Your task to perform on an android device: turn off data saver in the chrome app Image 0: 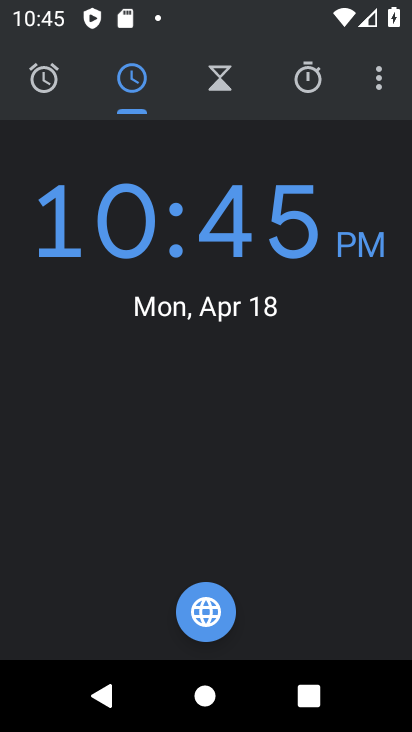
Step 0: press home button
Your task to perform on an android device: turn off data saver in the chrome app Image 1: 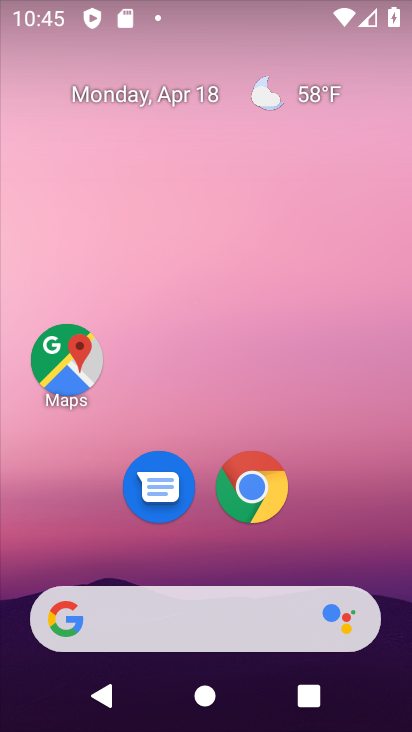
Step 1: drag from (338, 448) to (284, 137)
Your task to perform on an android device: turn off data saver in the chrome app Image 2: 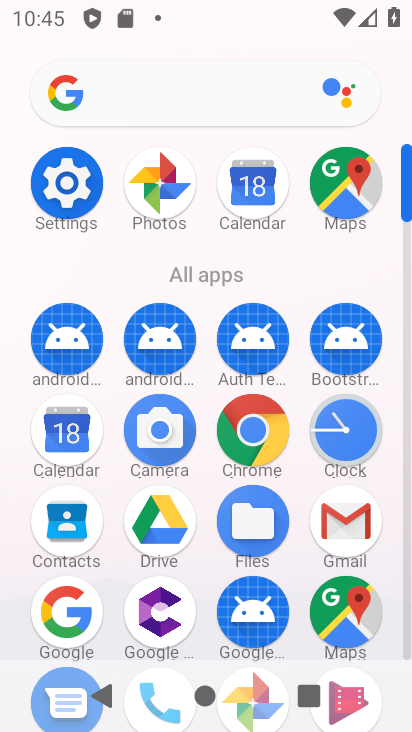
Step 2: click (264, 438)
Your task to perform on an android device: turn off data saver in the chrome app Image 3: 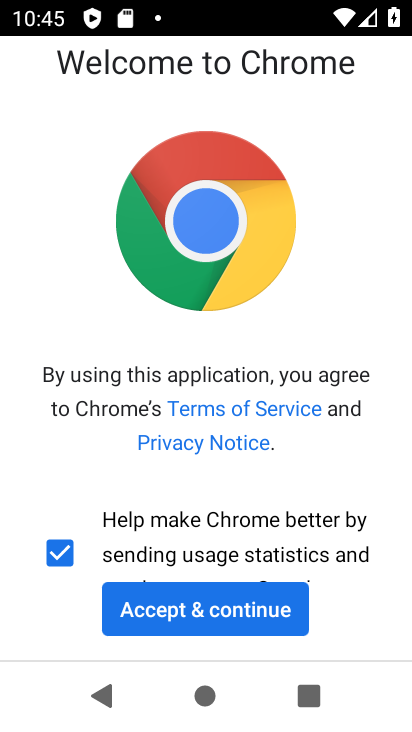
Step 3: click (283, 621)
Your task to perform on an android device: turn off data saver in the chrome app Image 4: 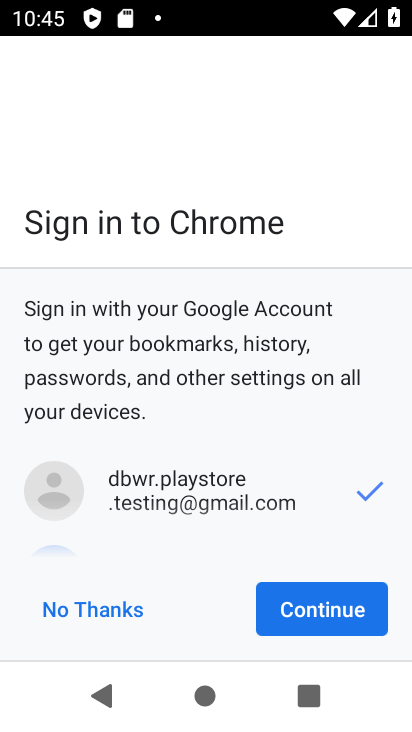
Step 4: click (297, 617)
Your task to perform on an android device: turn off data saver in the chrome app Image 5: 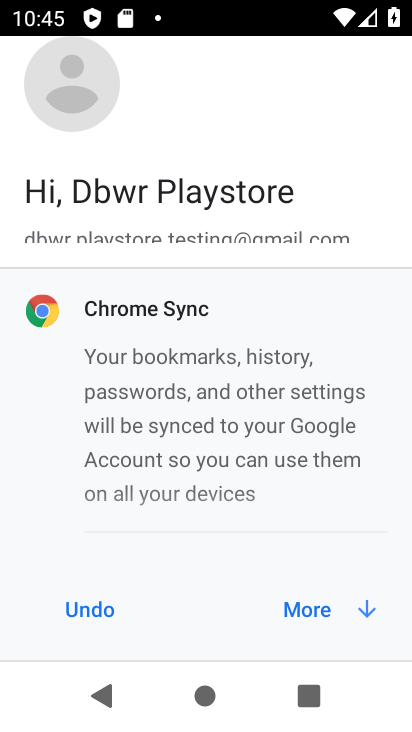
Step 5: click (297, 617)
Your task to perform on an android device: turn off data saver in the chrome app Image 6: 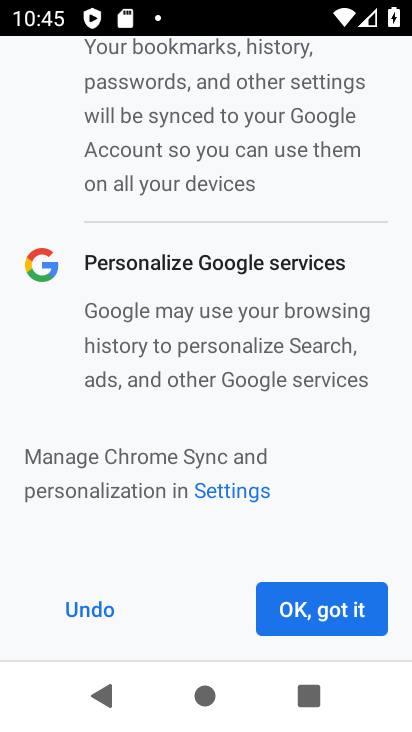
Step 6: click (297, 617)
Your task to perform on an android device: turn off data saver in the chrome app Image 7: 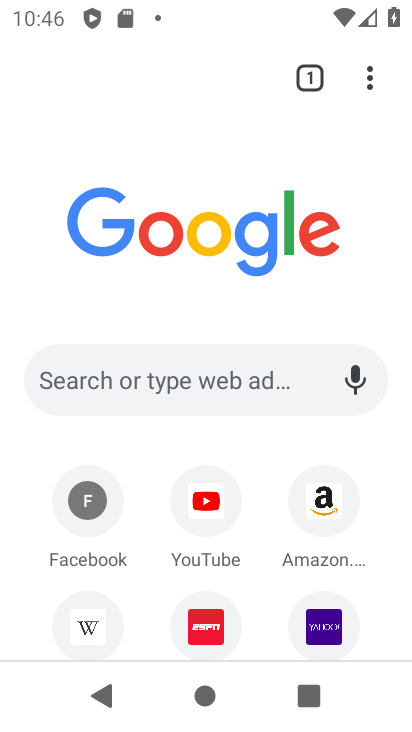
Step 7: click (368, 69)
Your task to perform on an android device: turn off data saver in the chrome app Image 8: 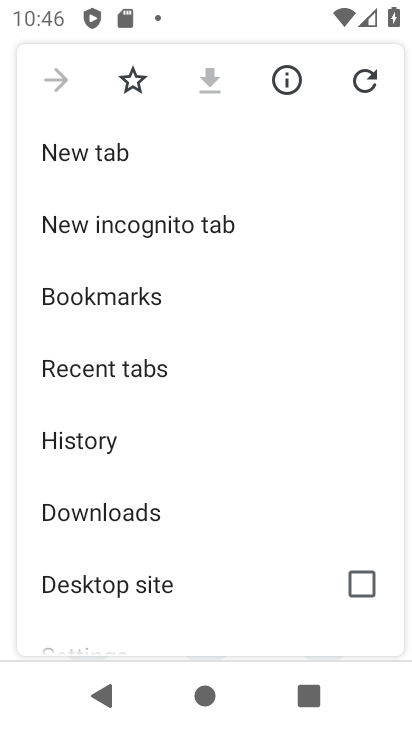
Step 8: drag from (236, 556) to (231, 181)
Your task to perform on an android device: turn off data saver in the chrome app Image 9: 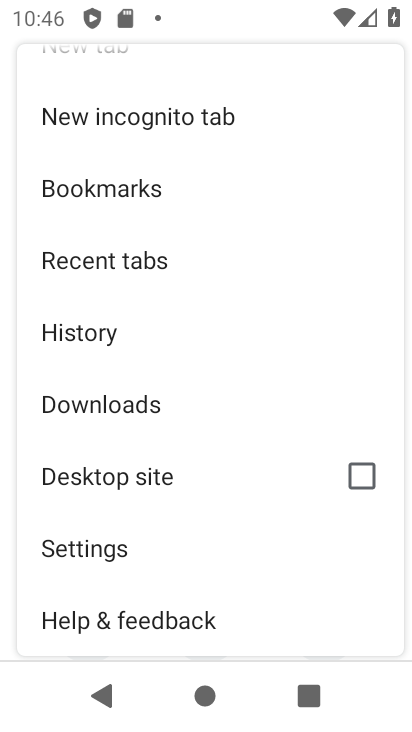
Step 9: click (105, 551)
Your task to perform on an android device: turn off data saver in the chrome app Image 10: 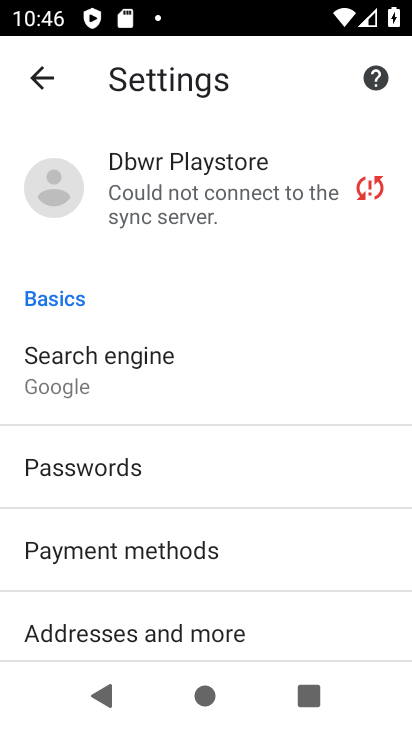
Step 10: drag from (242, 601) to (237, 160)
Your task to perform on an android device: turn off data saver in the chrome app Image 11: 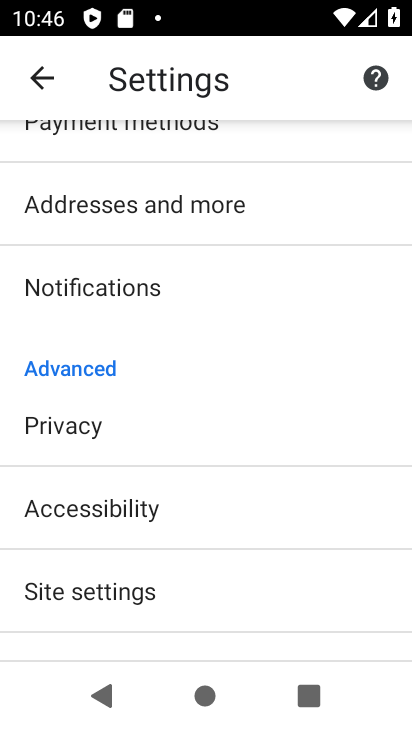
Step 11: drag from (217, 546) to (193, 233)
Your task to perform on an android device: turn off data saver in the chrome app Image 12: 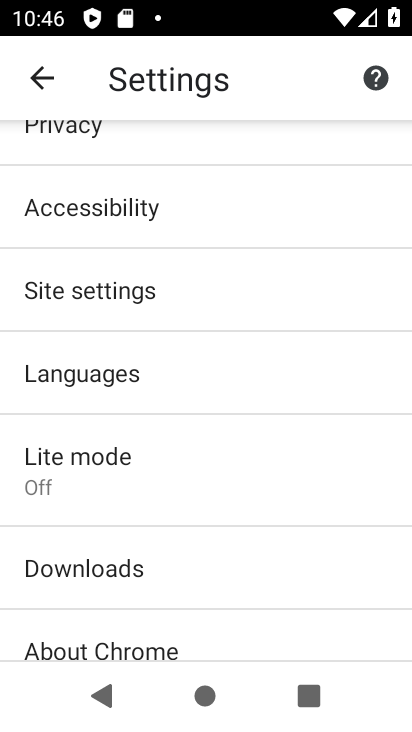
Step 12: click (162, 473)
Your task to perform on an android device: turn off data saver in the chrome app Image 13: 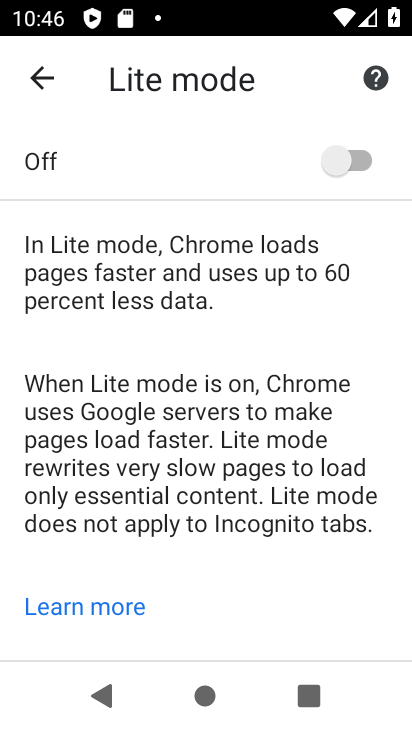
Step 13: task complete